Your task to perform on an android device: see tabs open on other devices in the chrome app Image 0: 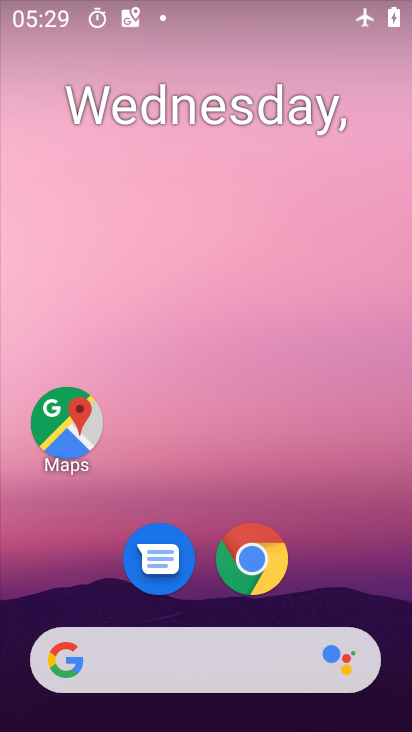
Step 0: click (264, 559)
Your task to perform on an android device: see tabs open on other devices in the chrome app Image 1: 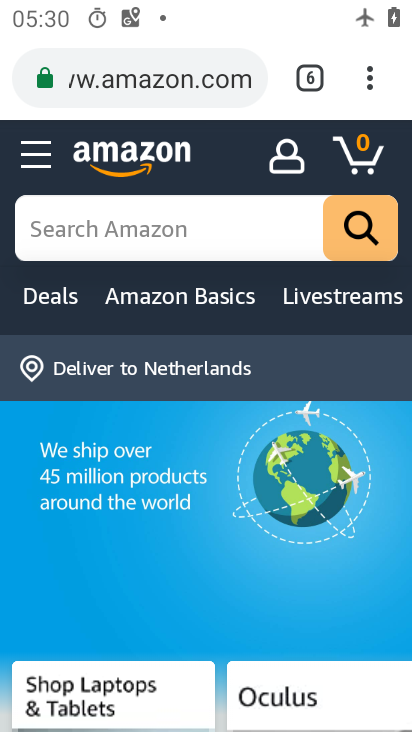
Step 1: click (368, 68)
Your task to perform on an android device: see tabs open on other devices in the chrome app Image 2: 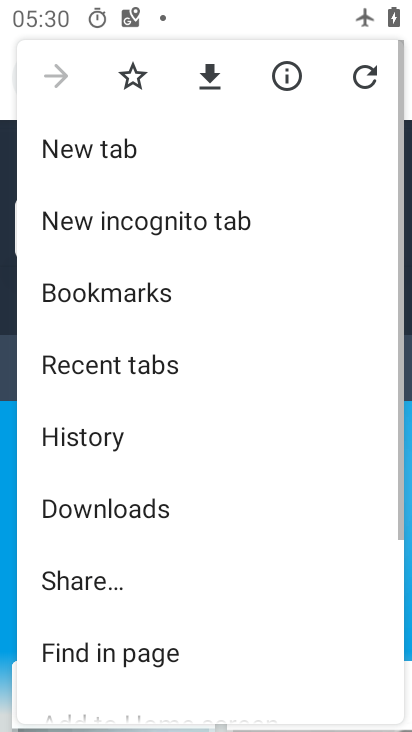
Step 2: click (170, 364)
Your task to perform on an android device: see tabs open on other devices in the chrome app Image 3: 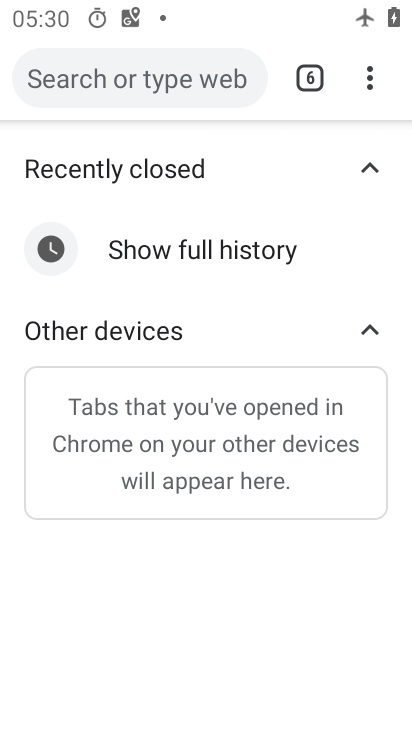
Step 3: task complete